Your task to perform on an android device: turn off location history Image 0: 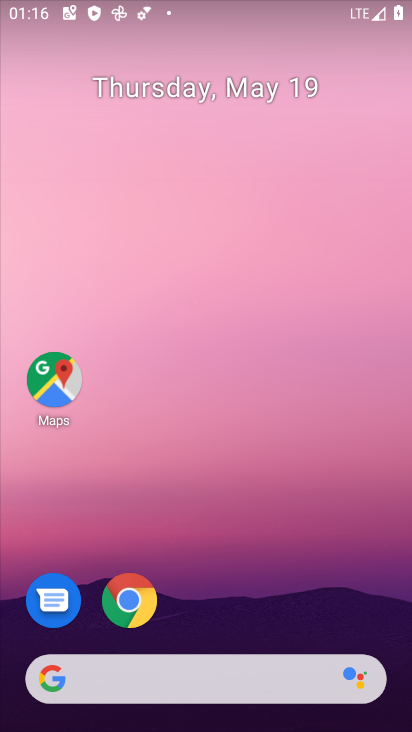
Step 0: click (54, 364)
Your task to perform on an android device: turn off location history Image 1: 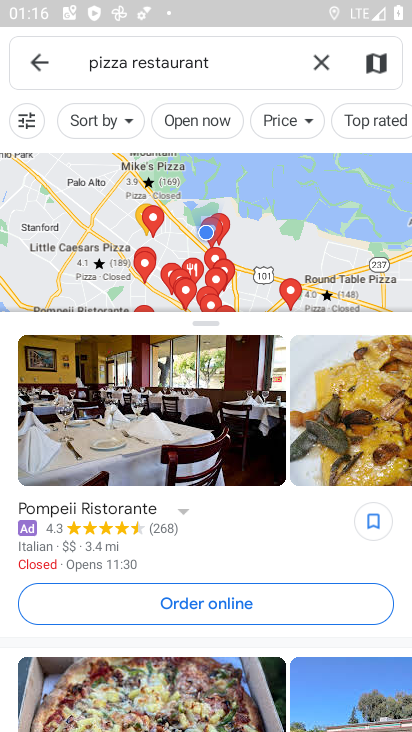
Step 1: click (40, 57)
Your task to perform on an android device: turn off location history Image 2: 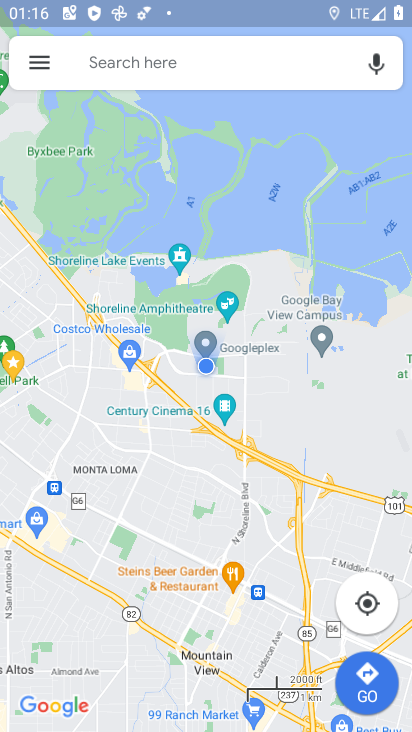
Step 2: click (39, 59)
Your task to perform on an android device: turn off location history Image 3: 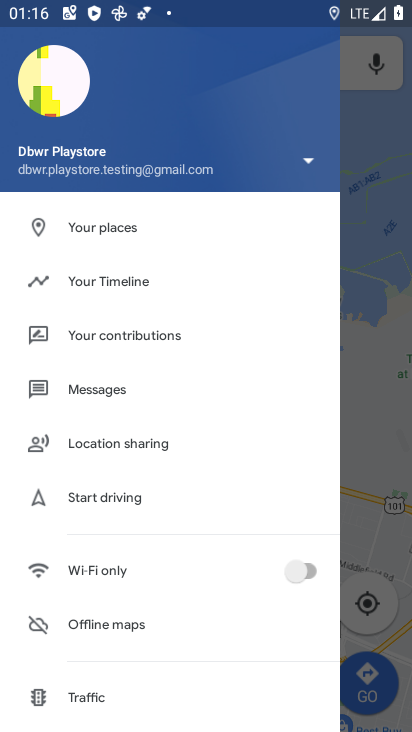
Step 3: click (106, 282)
Your task to perform on an android device: turn off location history Image 4: 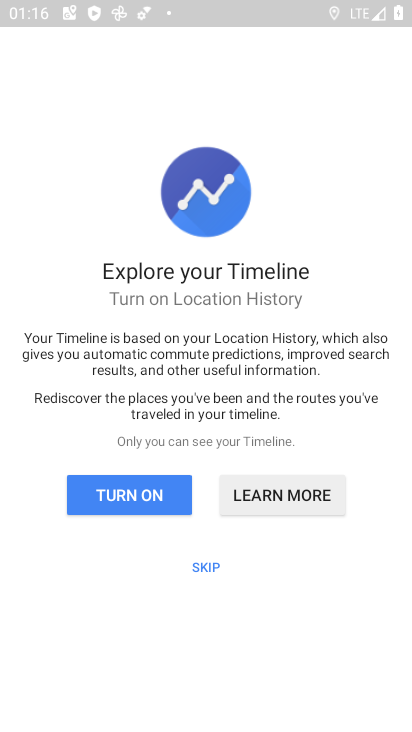
Step 4: click (159, 497)
Your task to perform on an android device: turn off location history Image 5: 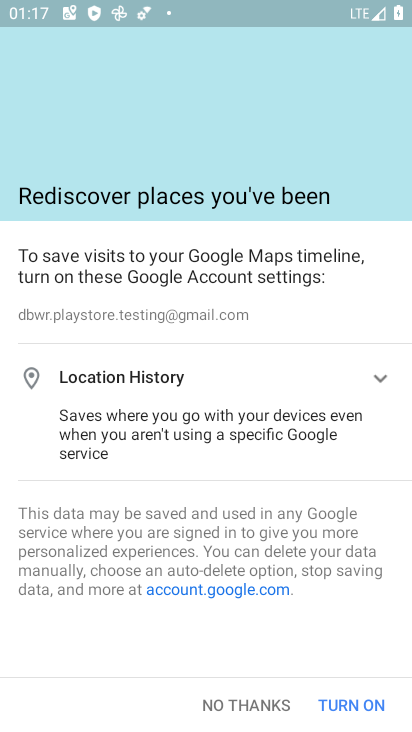
Step 5: click (388, 65)
Your task to perform on an android device: turn off location history Image 6: 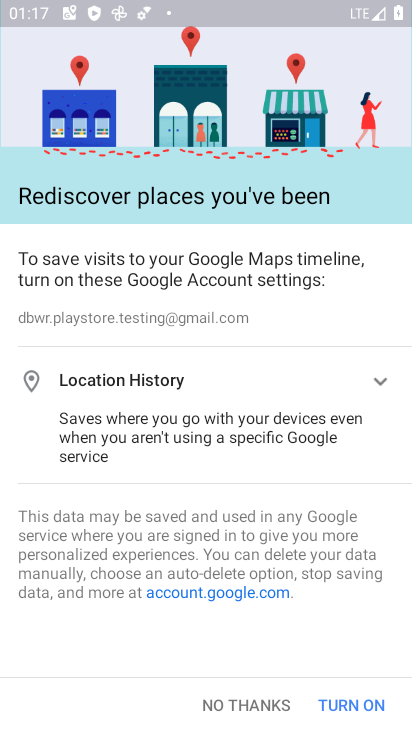
Step 6: task complete